Your task to perform on an android device: Find coffee shops on Maps Image 0: 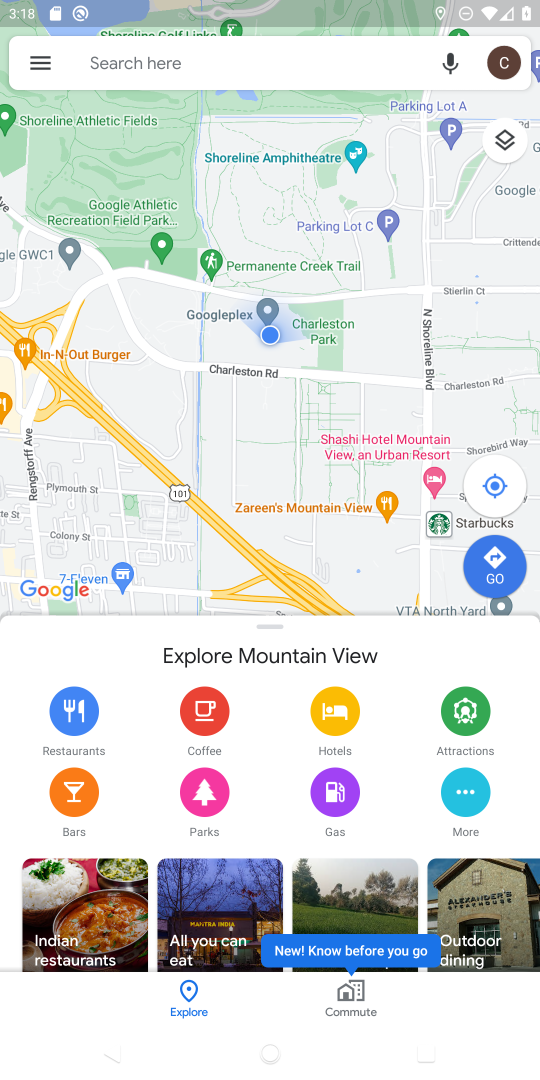
Step 0: click (162, 77)
Your task to perform on an android device: Find coffee shops on Maps Image 1: 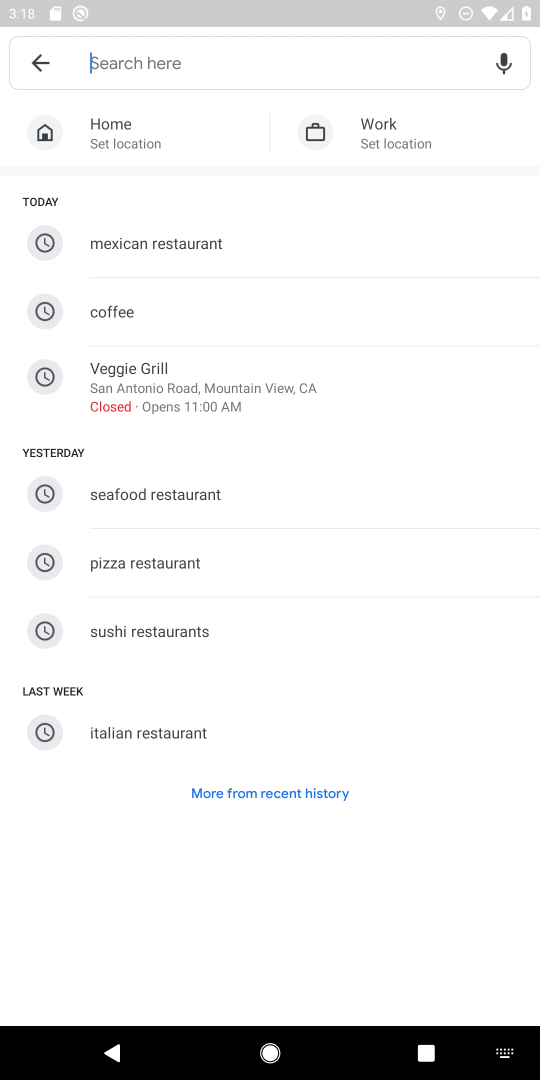
Step 1: type "coffee shops "
Your task to perform on an android device: Find coffee shops on Maps Image 2: 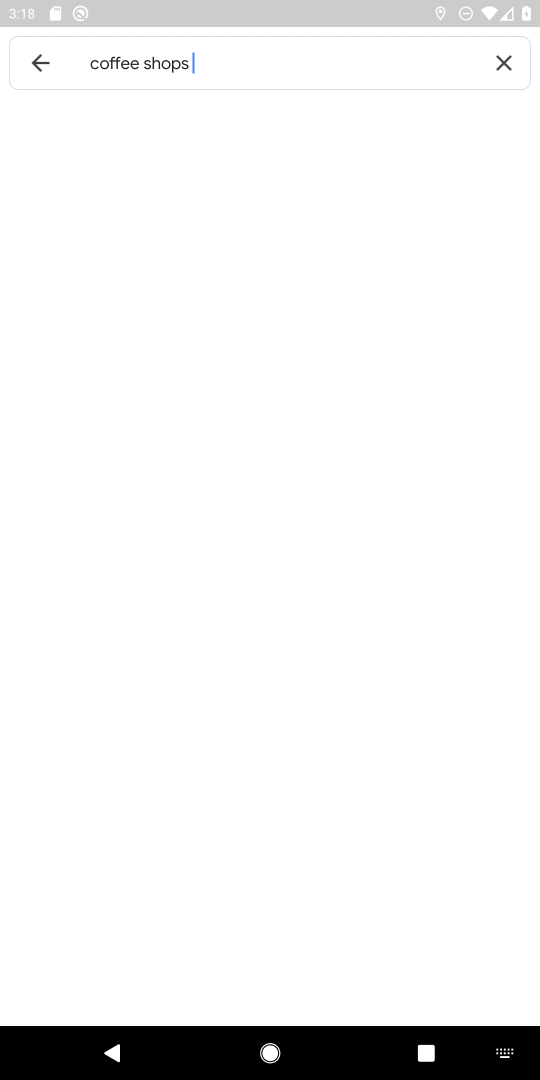
Step 2: type ""
Your task to perform on an android device: Find coffee shops on Maps Image 3: 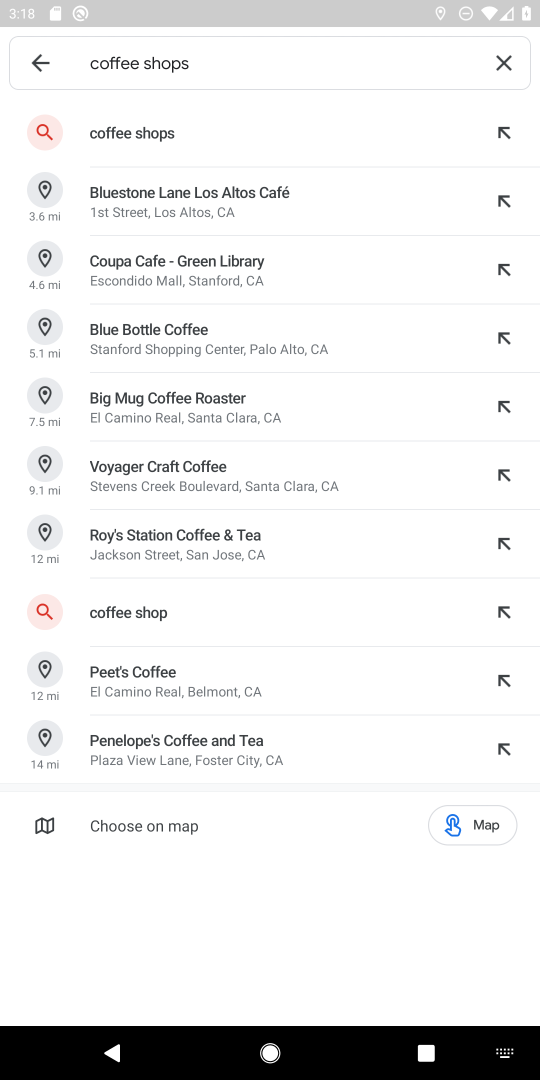
Step 3: press enter
Your task to perform on an android device: Find coffee shops on Maps Image 4: 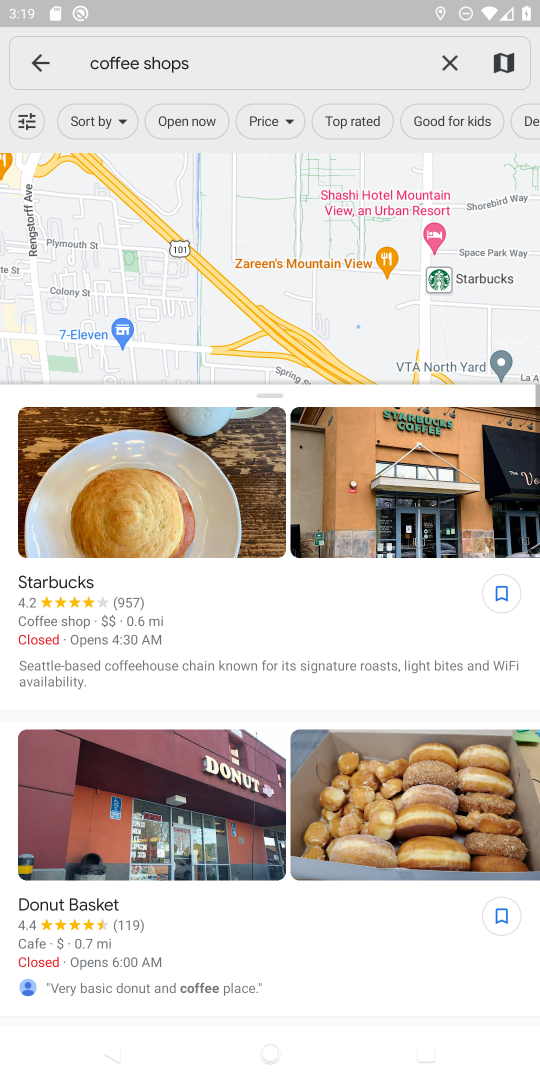
Step 4: task complete